Your task to perform on an android device: Open calendar and show me the fourth week of next month Image 0: 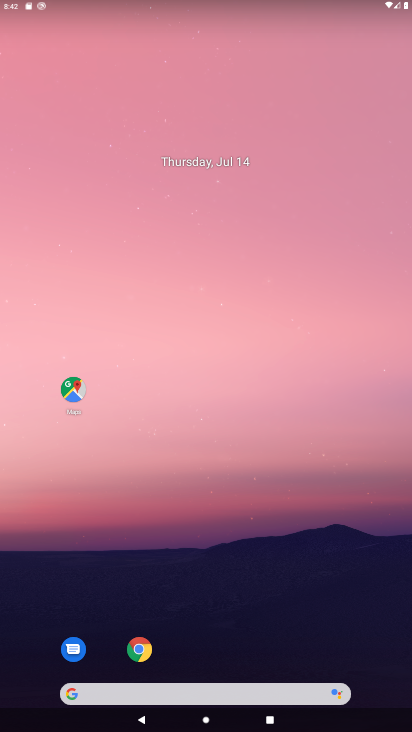
Step 0: drag from (222, 672) to (203, 3)
Your task to perform on an android device: Open calendar and show me the fourth week of next month Image 1: 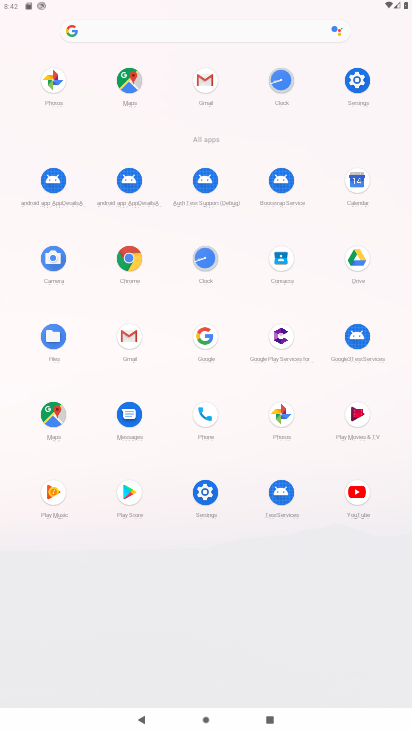
Step 1: click (363, 188)
Your task to perform on an android device: Open calendar and show me the fourth week of next month Image 2: 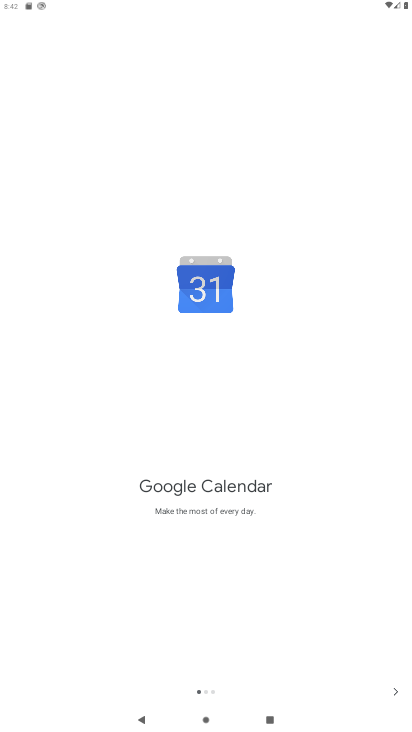
Step 2: click (391, 690)
Your task to perform on an android device: Open calendar and show me the fourth week of next month Image 3: 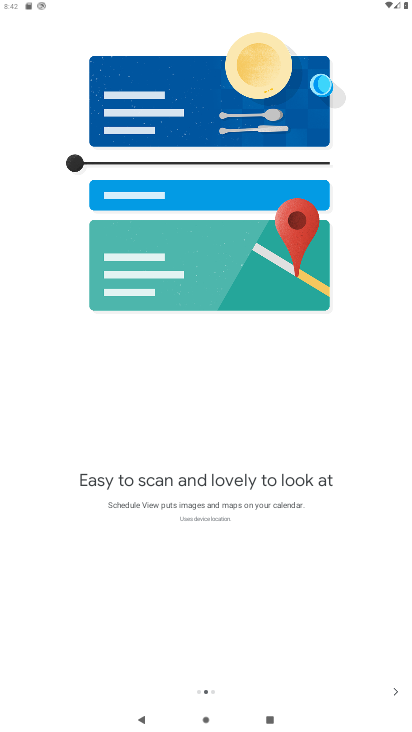
Step 3: click (392, 687)
Your task to perform on an android device: Open calendar and show me the fourth week of next month Image 4: 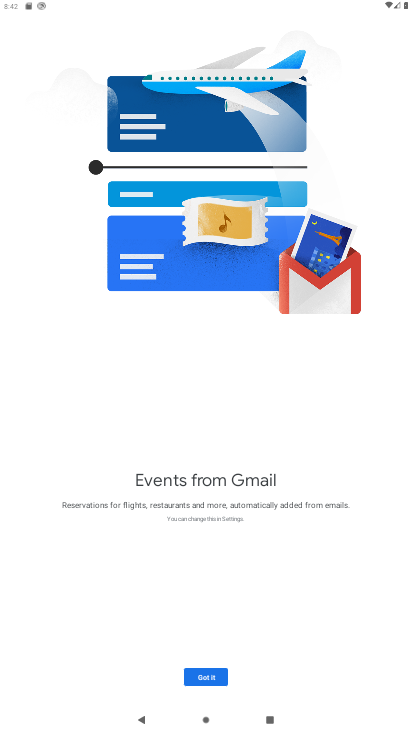
Step 4: click (203, 674)
Your task to perform on an android device: Open calendar and show me the fourth week of next month Image 5: 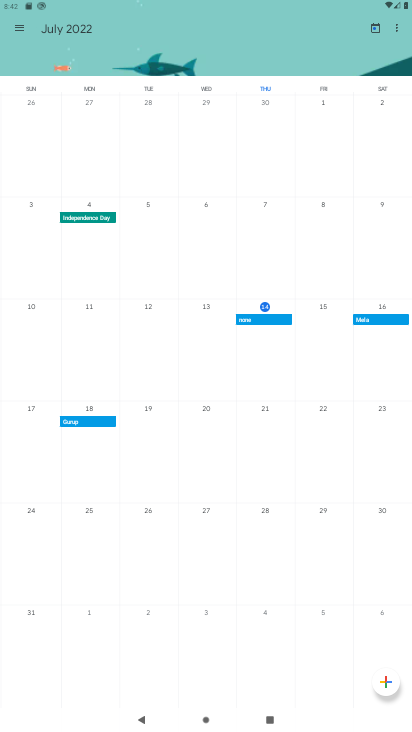
Step 5: click (70, 31)
Your task to perform on an android device: Open calendar and show me the fourth week of next month Image 6: 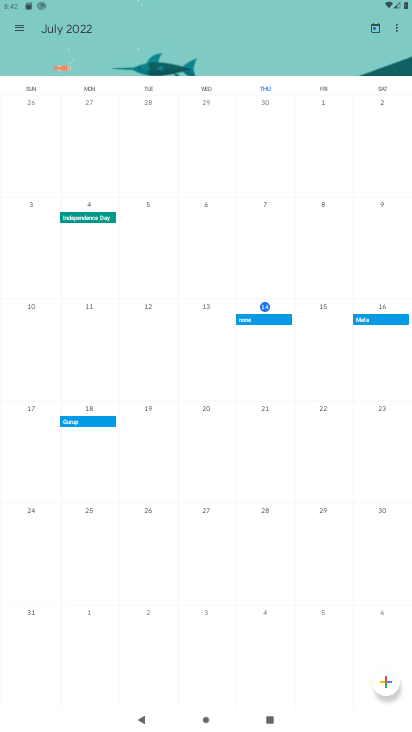
Step 6: drag from (348, 281) to (11, 261)
Your task to perform on an android device: Open calendar and show me the fourth week of next month Image 7: 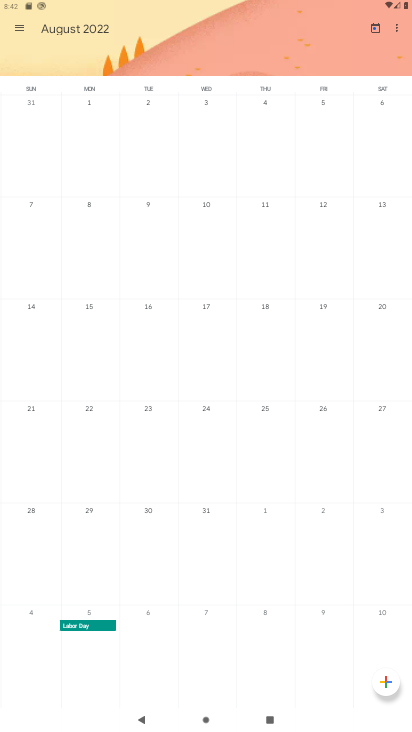
Step 7: click (17, 23)
Your task to perform on an android device: Open calendar and show me the fourth week of next month Image 8: 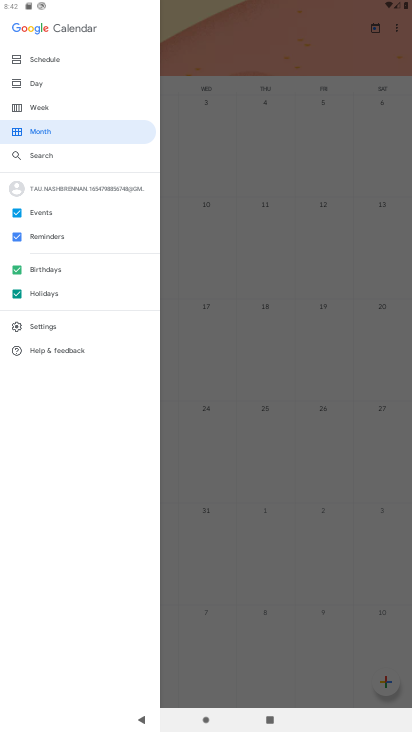
Step 8: click (48, 107)
Your task to perform on an android device: Open calendar and show me the fourth week of next month Image 9: 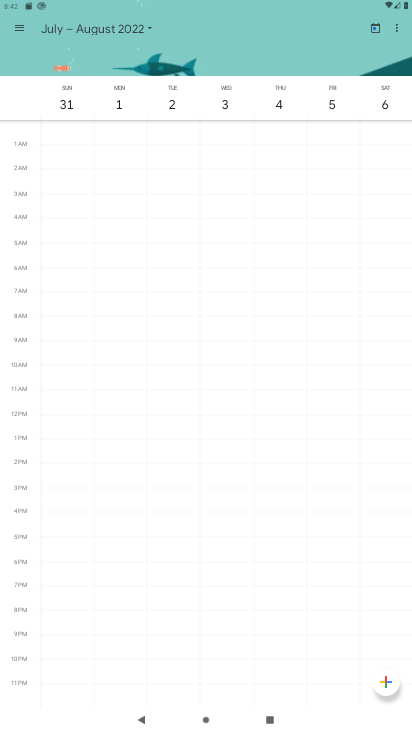
Step 9: task complete